Your task to perform on an android device: turn on the 24-hour format for clock Image 0: 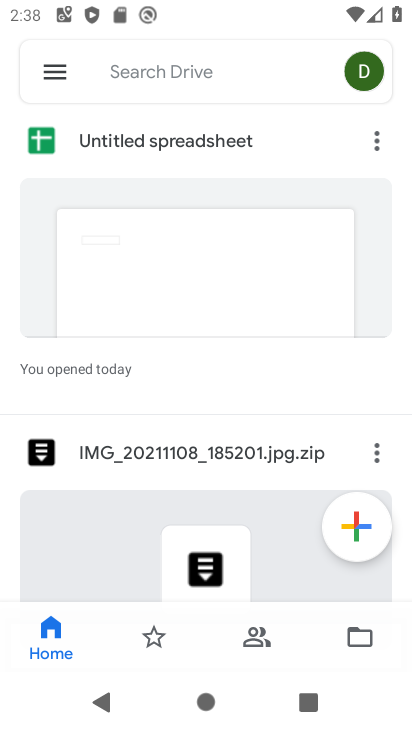
Step 0: press back button
Your task to perform on an android device: turn on the 24-hour format for clock Image 1: 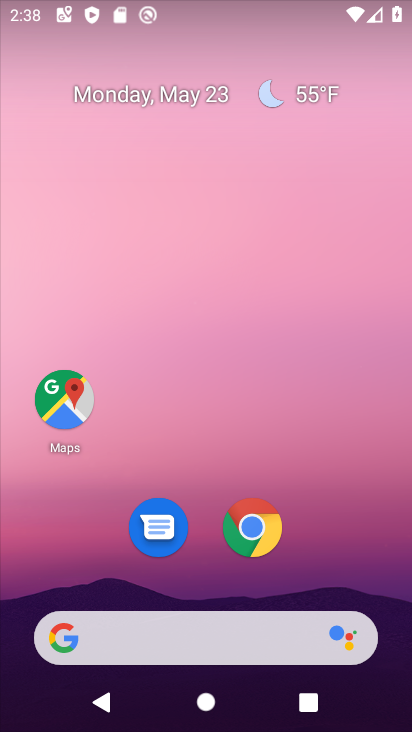
Step 1: drag from (348, 544) to (236, 1)
Your task to perform on an android device: turn on the 24-hour format for clock Image 2: 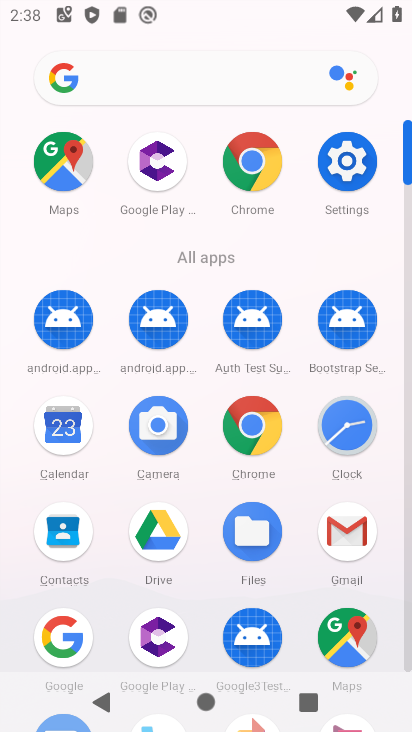
Step 2: drag from (18, 619) to (15, 219)
Your task to perform on an android device: turn on the 24-hour format for clock Image 3: 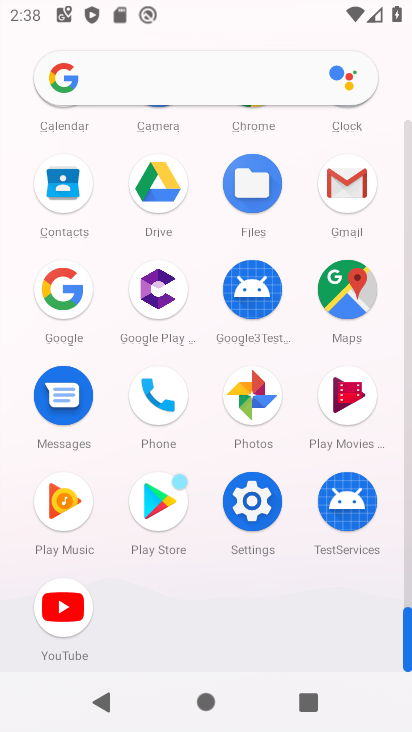
Step 3: drag from (24, 189) to (18, 503)
Your task to perform on an android device: turn on the 24-hour format for clock Image 4: 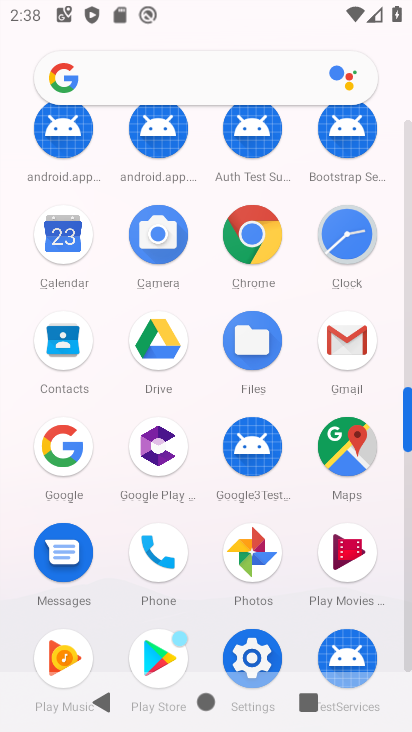
Step 4: click (347, 226)
Your task to perform on an android device: turn on the 24-hour format for clock Image 5: 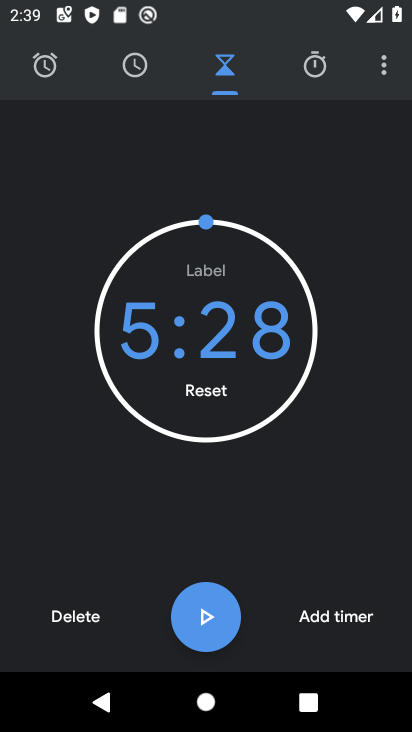
Step 5: drag from (382, 64) to (257, 121)
Your task to perform on an android device: turn on the 24-hour format for clock Image 6: 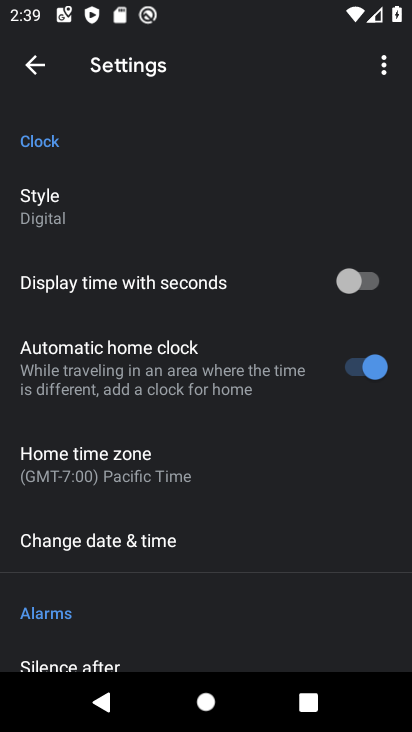
Step 6: click (187, 531)
Your task to perform on an android device: turn on the 24-hour format for clock Image 7: 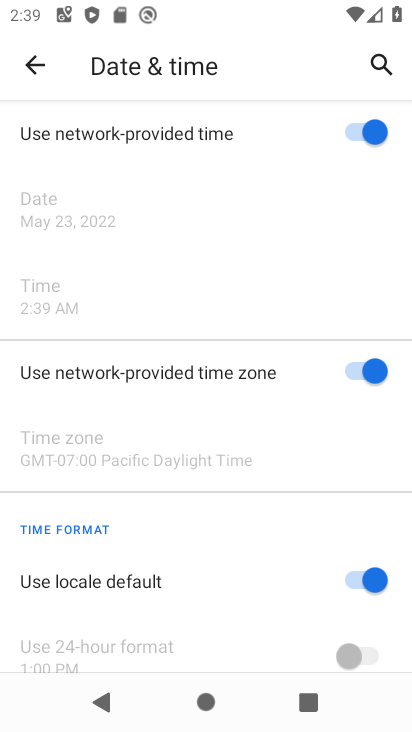
Step 7: drag from (186, 530) to (203, 212)
Your task to perform on an android device: turn on the 24-hour format for clock Image 8: 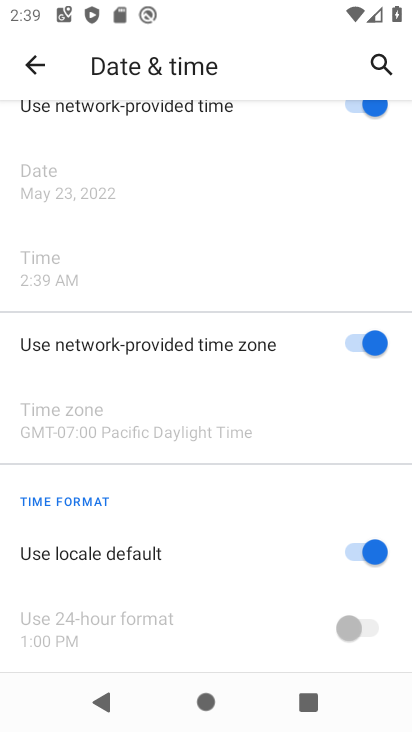
Step 8: click (365, 550)
Your task to perform on an android device: turn on the 24-hour format for clock Image 9: 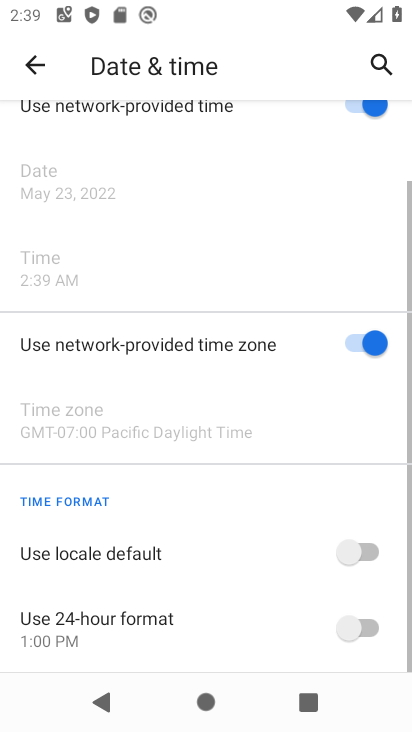
Step 9: click (357, 622)
Your task to perform on an android device: turn on the 24-hour format for clock Image 10: 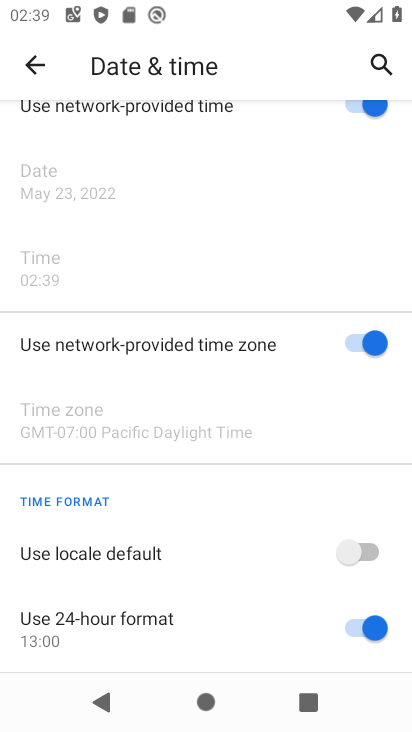
Step 10: task complete